Your task to perform on an android device: turn on notifications settings in the gmail app Image 0: 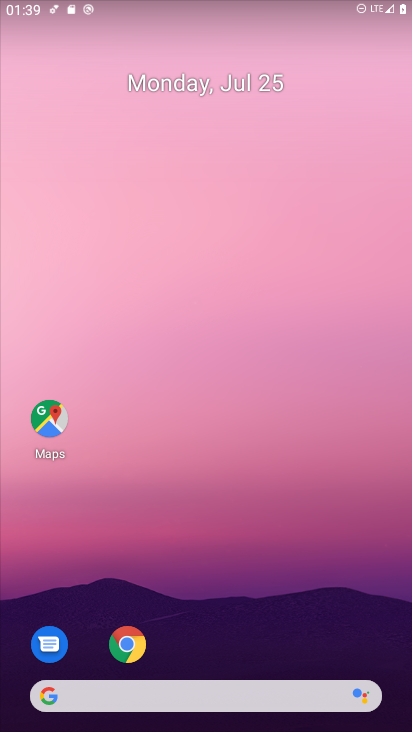
Step 0: drag from (233, 728) to (195, 14)
Your task to perform on an android device: turn on notifications settings in the gmail app Image 1: 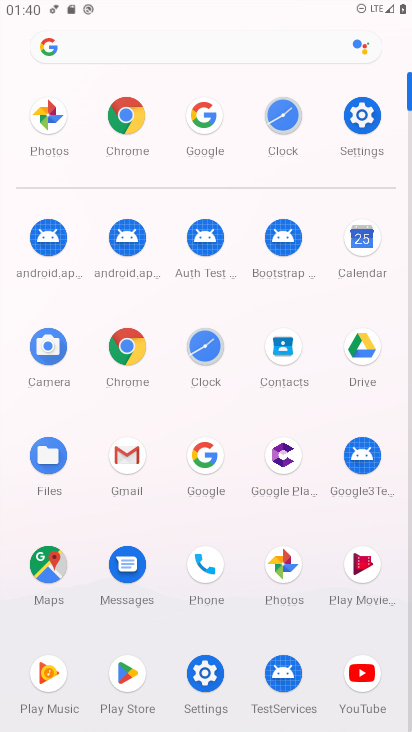
Step 1: click (122, 454)
Your task to perform on an android device: turn on notifications settings in the gmail app Image 2: 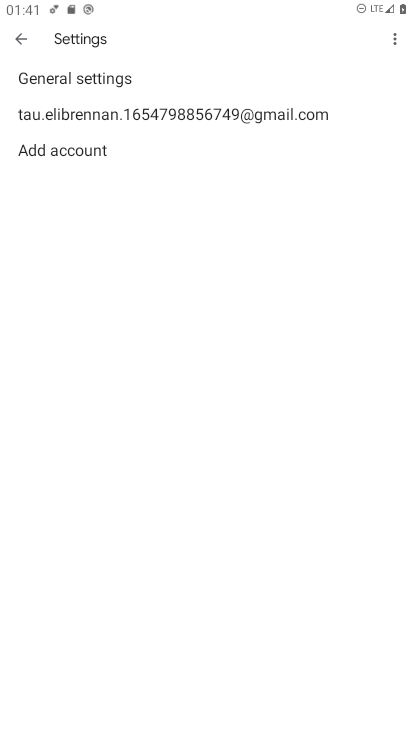
Step 2: click (84, 110)
Your task to perform on an android device: turn on notifications settings in the gmail app Image 3: 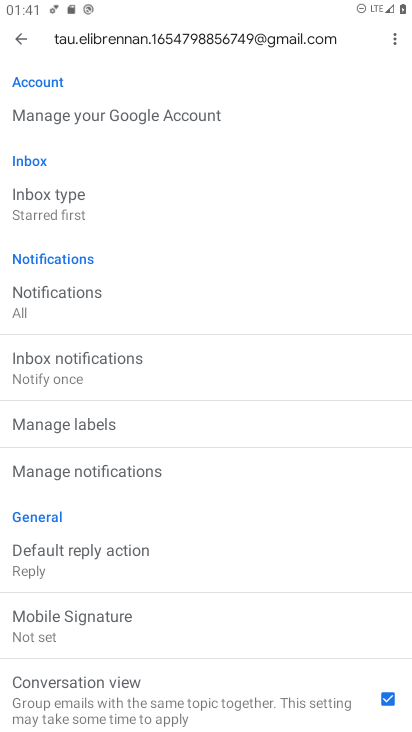
Step 3: click (39, 293)
Your task to perform on an android device: turn on notifications settings in the gmail app Image 4: 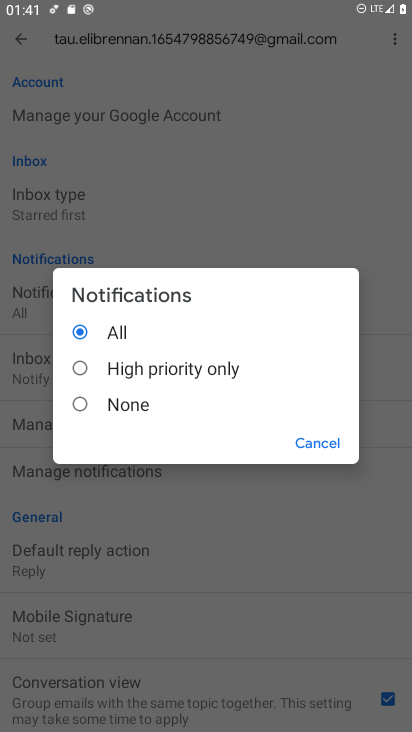
Step 4: click (323, 439)
Your task to perform on an android device: turn on notifications settings in the gmail app Image 5: 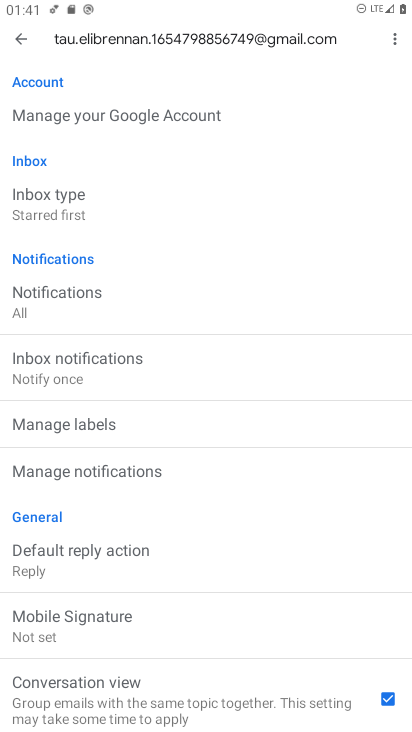
Step 5: task complete